Your task to perform on an android device: Open notification settings Image 0: 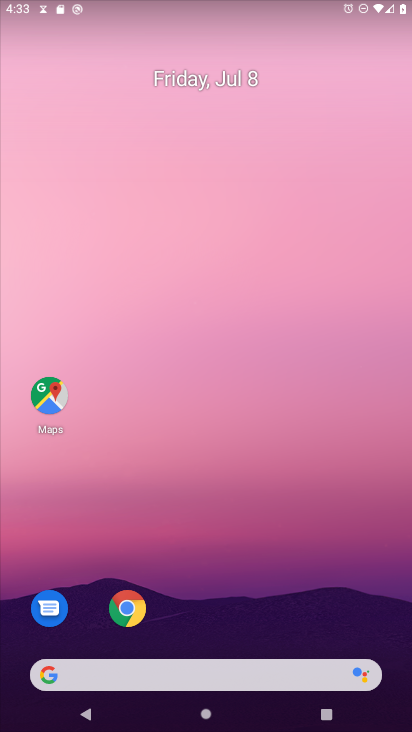
Step 0: drag from (339, 650) to (271, 10)
Your task to perform on an android device: Open notification settings Image 1: 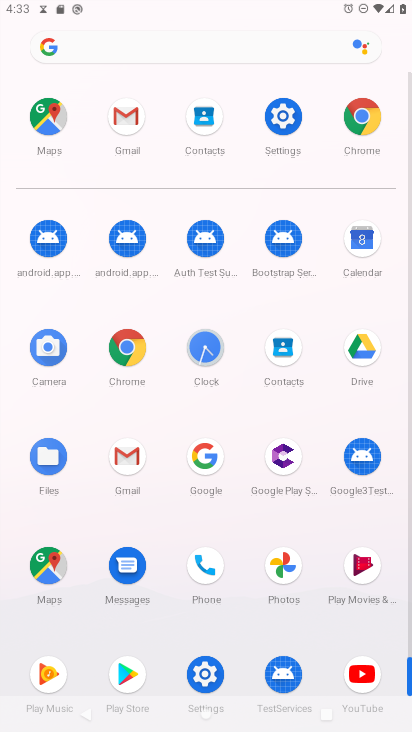
Step 1: click (295, 106)
Your task to perform on an android device: Open notification settings Image 2: 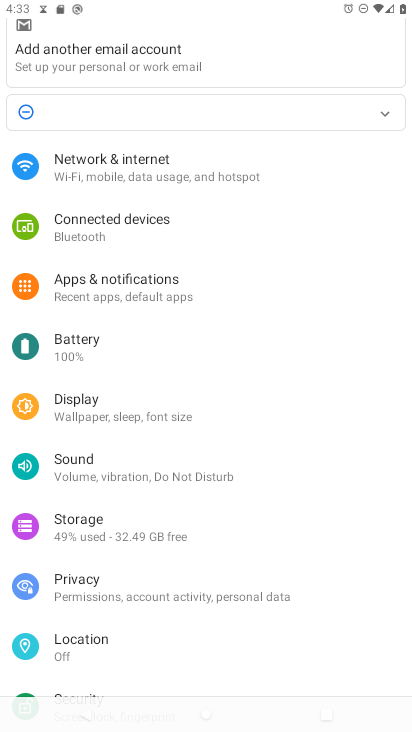
Step 2: click (160, 301)
Your task to perform on an android device: Open notification settings Image 3: 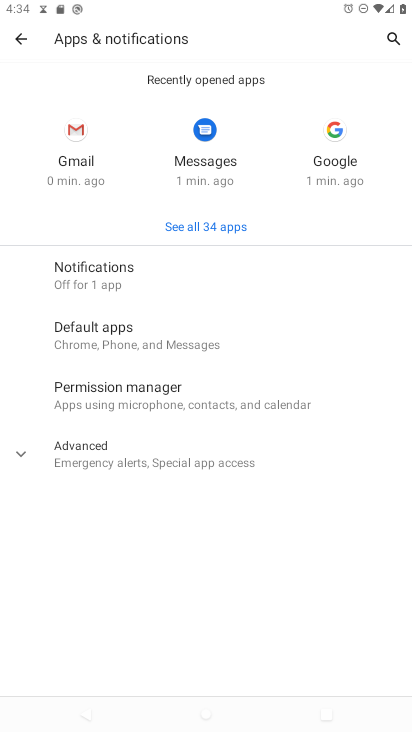
Step 3: click (106, 259)
Your task to perform on an android device: Open notification settings Image 4: 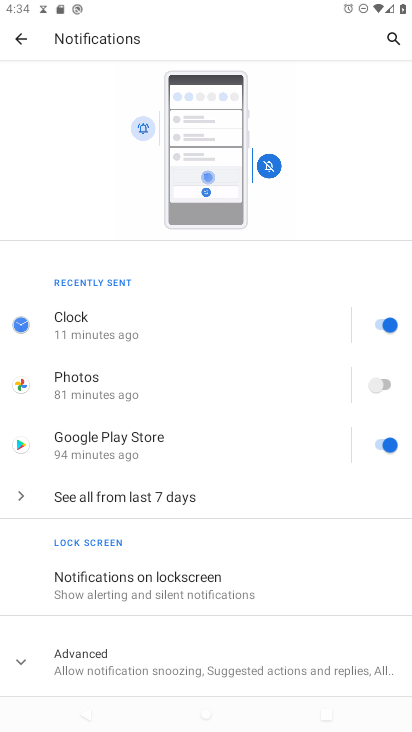
Step 4: task complete